Your task to perform on an android device: Open battery settings Image 0: 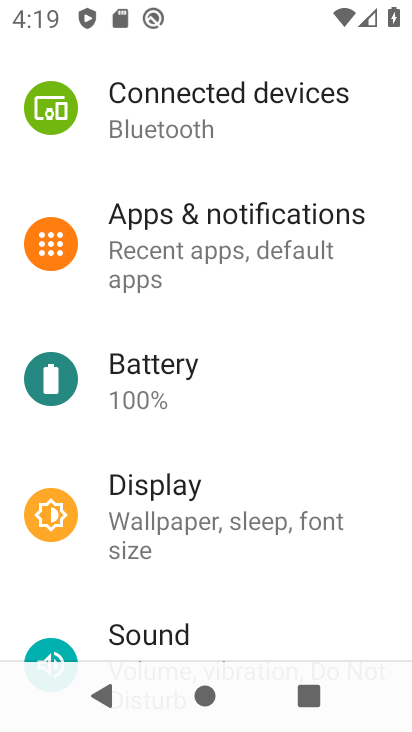
Step 0: click (208, 381)
Your task to perform on an android device: Open battery settings Image 1: 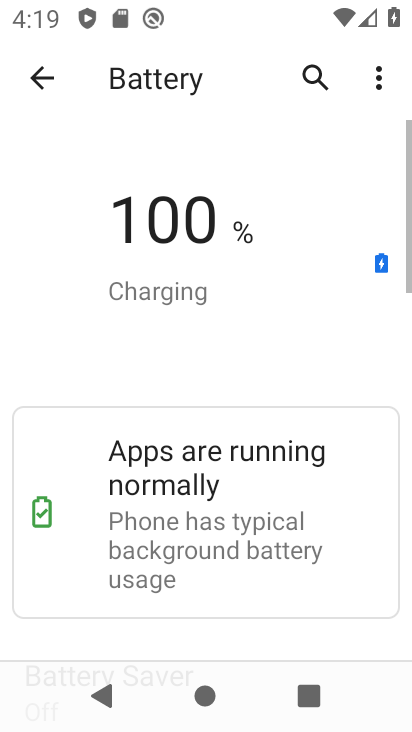
Step 1: task complete